Your task to perform on an android device: Go to battery settings Image 0: 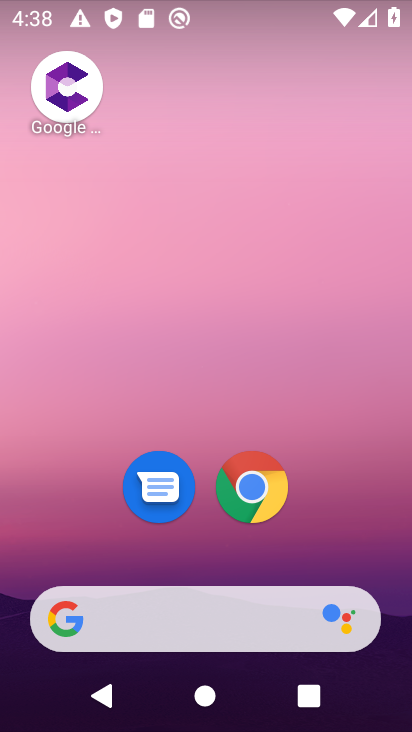
Step 0: drag from (215, 544) to (168, 115)
Your task to perform on an android device: Go to battery settings Image 1: 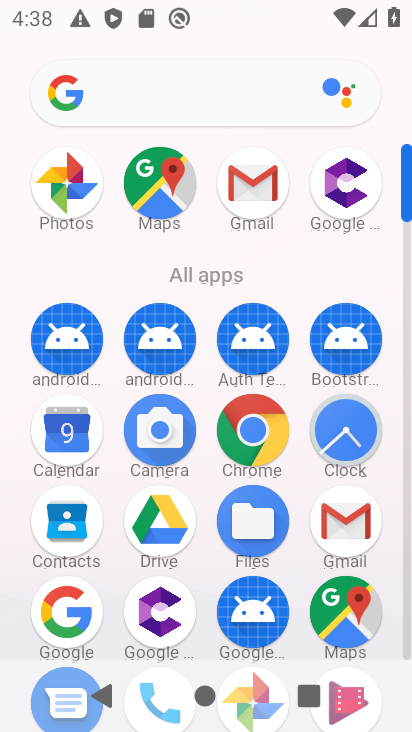
Step 1: drag from (283, 386) to (255, 139)
Your task to perform on an android device: Go to battery settings Image 2: 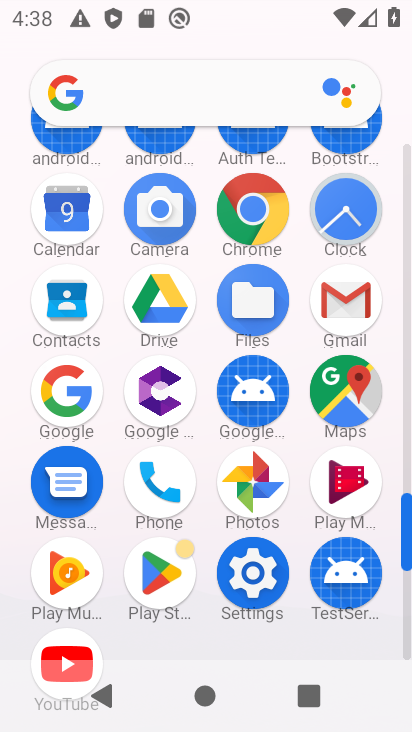
Step 2: click (258, 574)
Your task to perform on an android device: Go to battery settings Image 3: 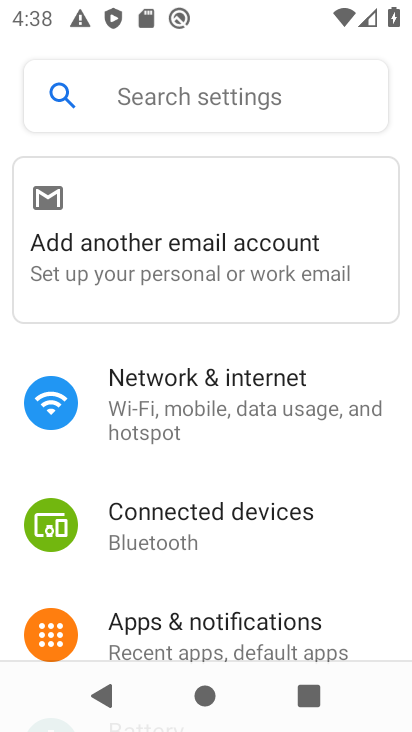
Step 3: drag from (205, 490) to (184, 302)
Your task to perform on an android device: Go to battery settings Image 4: 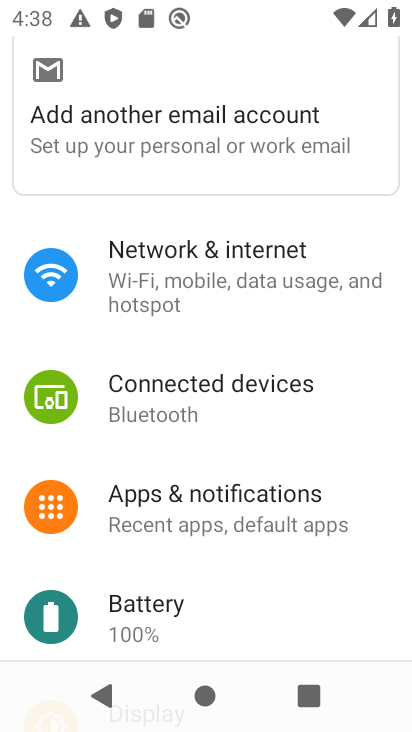
Step 4: click (156, 617)
Your task to perform on an android device: Go to battery settings Image 5: 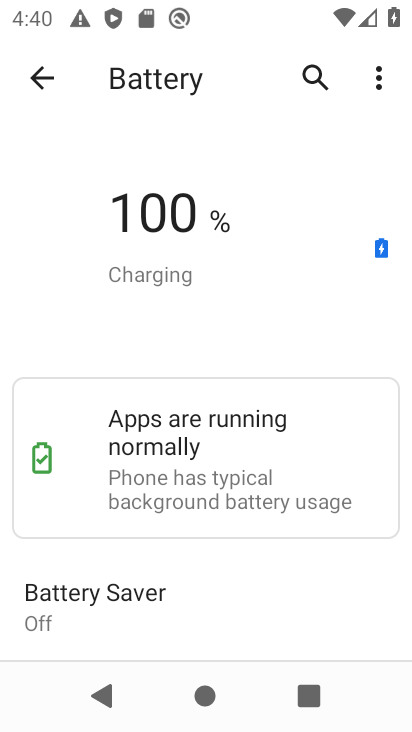
Step 5: task complete